Your task to perform on an android device: Go to ESPN.com Image 0: 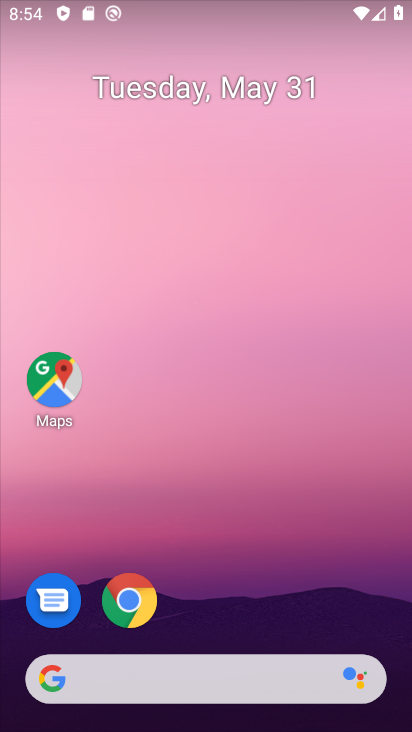
Step 0: drag from (237, 705) to (293, 183)
Your task to perform on an android device: Go to ESPN.com Image 1: 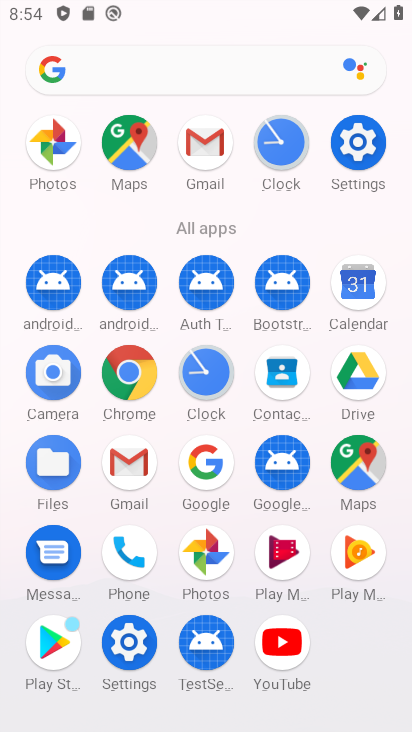
Step 1: click (136, 368)
Your task to perform on an android device: Go to ESPN.com Image 2: 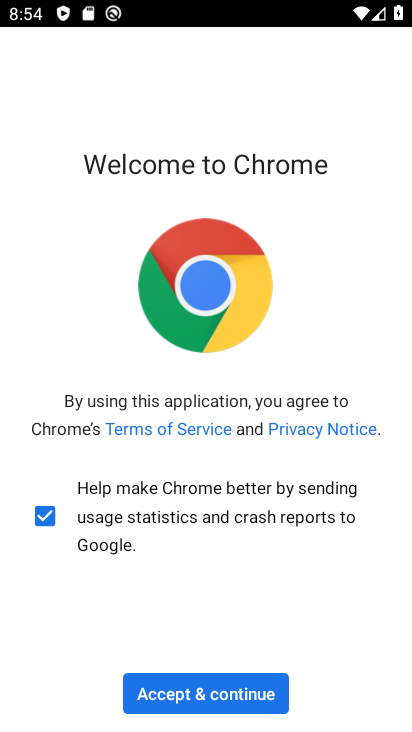
Step 2: click (191, 685)
Your task to perform on an android device: Go to ESPN.com Image 3: 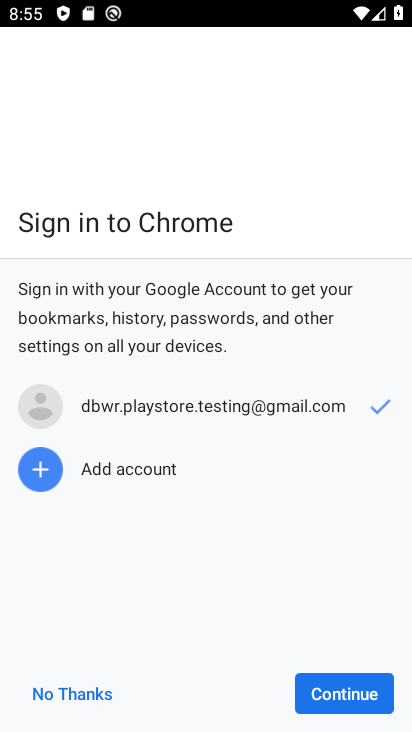
Step 3: click (331, 702)
Your task to perform on an android device: Go to ESPN.com Image 4: 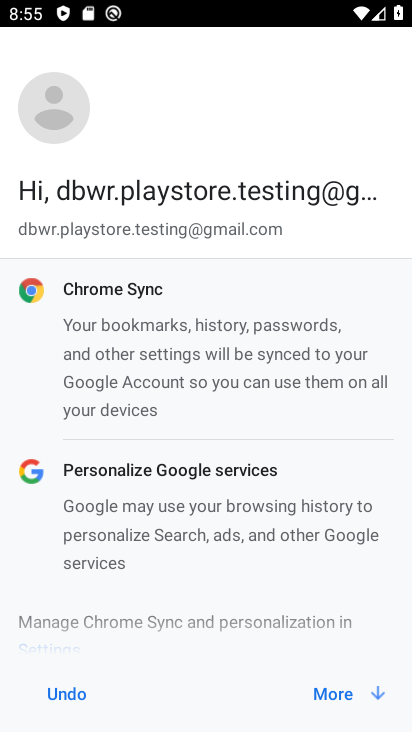
Step 4: click (379, 693)
Your task to perform on an android device: Go to ESPN.com Image 5: 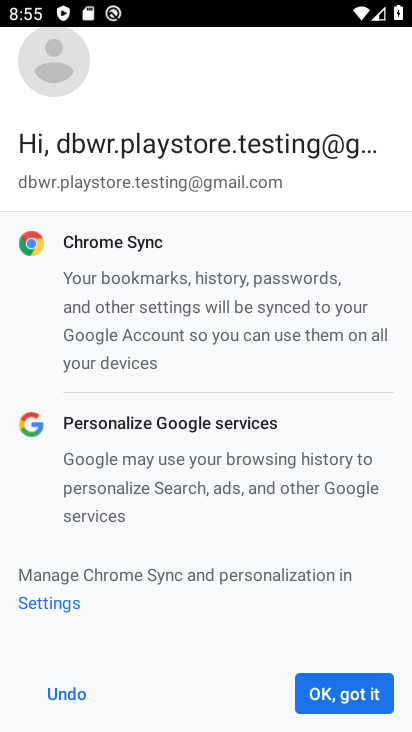
Step 5: click (379, 693)
Your task to perform on an android device: Go to ESPN.com Image 6: 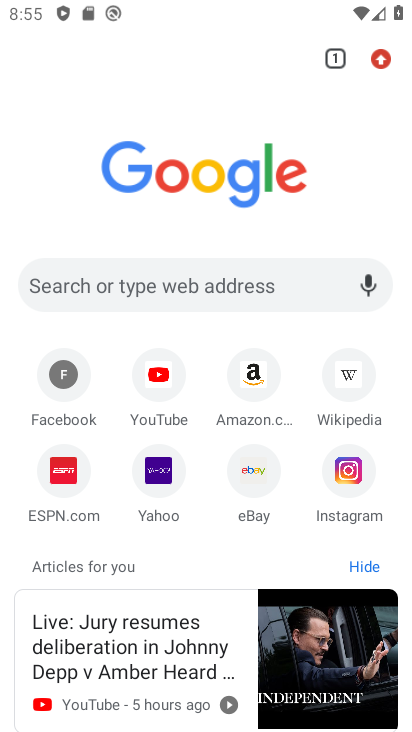
Step 6: click (73, 457)
Your task to perform on an android device: Go to ESPN.com Image 7: 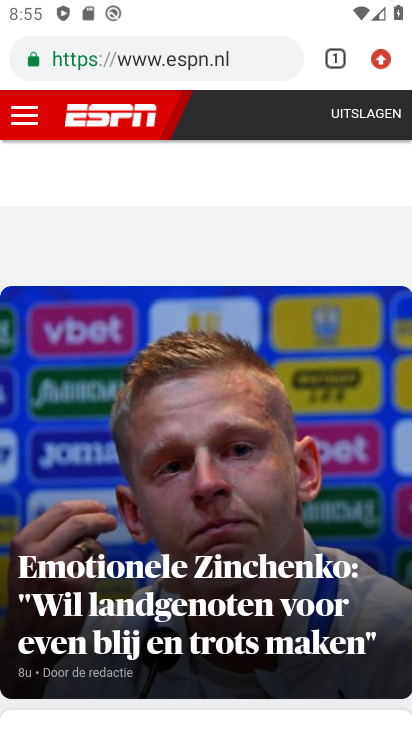
Step 7: task complete